Your task to perform on an android device: toggle javascript in the chrome app Image 0: 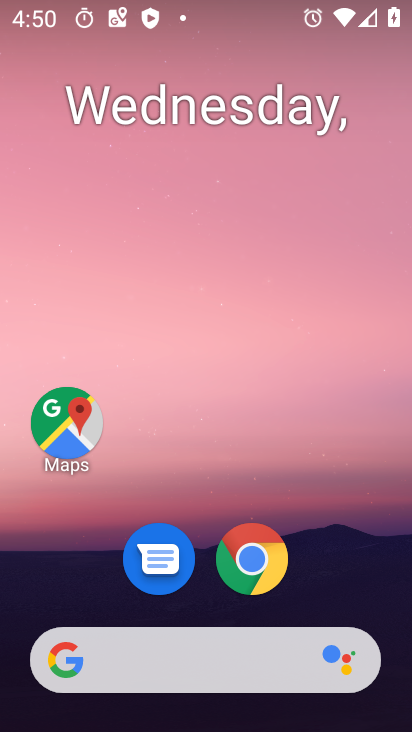
Step 0: click (266, 557)
Your task to perform on an android device: toggle javascript in the chrome app Image 1: 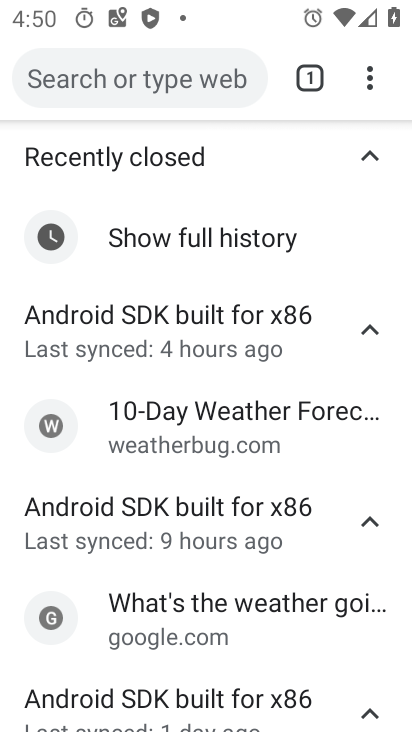
Step 1: click (371, 88)
Your task to perform on an android device: toggle javascript in the chrome app Image 2: 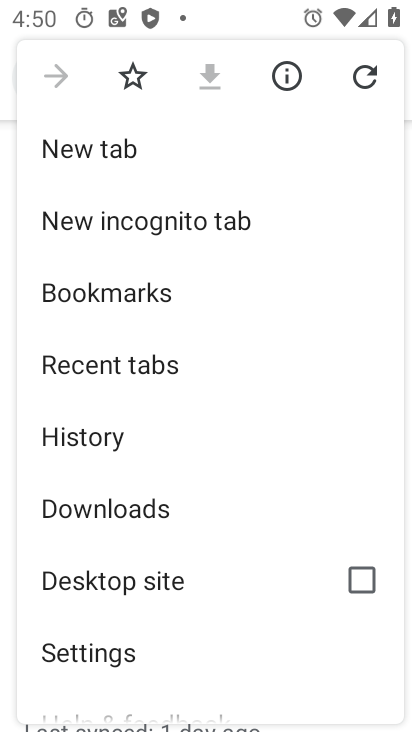
Step 2: drag from (227, 623) to (201, 186)
Your task to perform on an android device: toggle javascript in the chrome app Image 3: 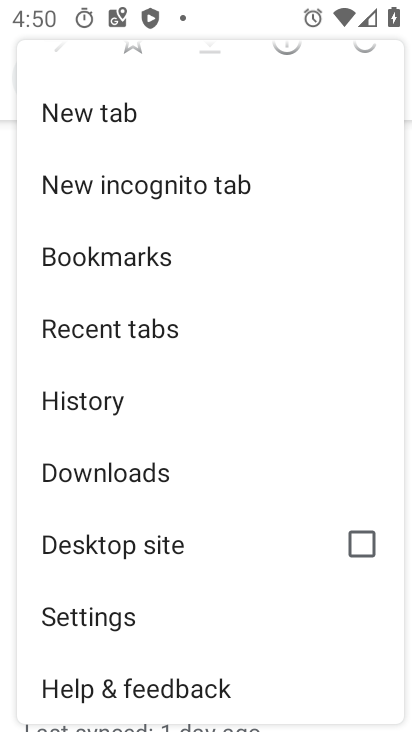
Step 3: click (198, 626)
Your task to perform on an android device: toggle javascript in the chrome app Image 4: 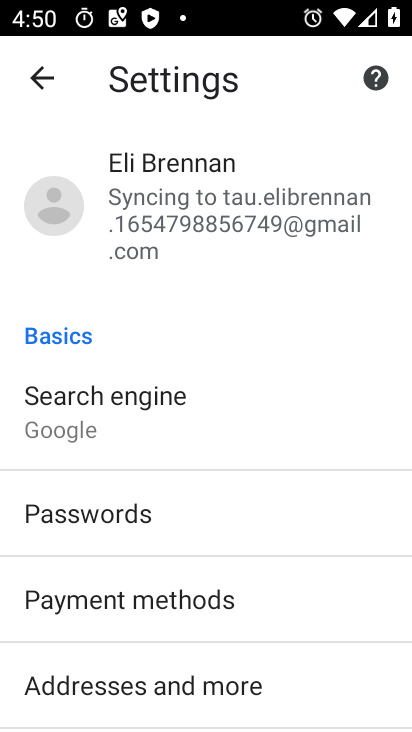
Step 4: drag from (242, 662) to (225, 242)
Your task to perform on an android device: toggle javascript in the chrome app Image 5: 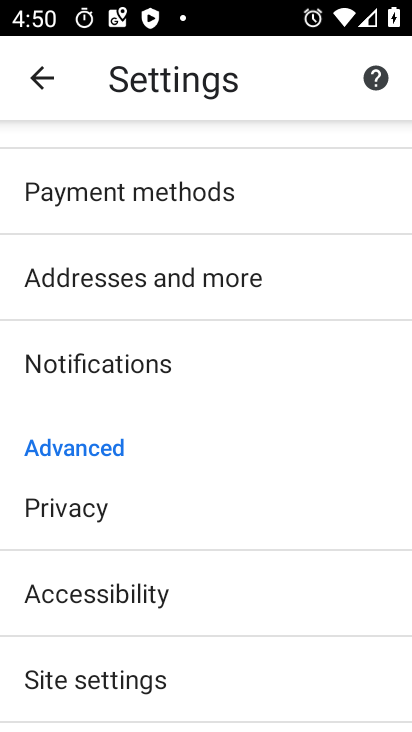
Step 5: drag from (269, 584) to (242, 226)
Your task to perform on an android device: toggle javascript in the chrome app Image 6: 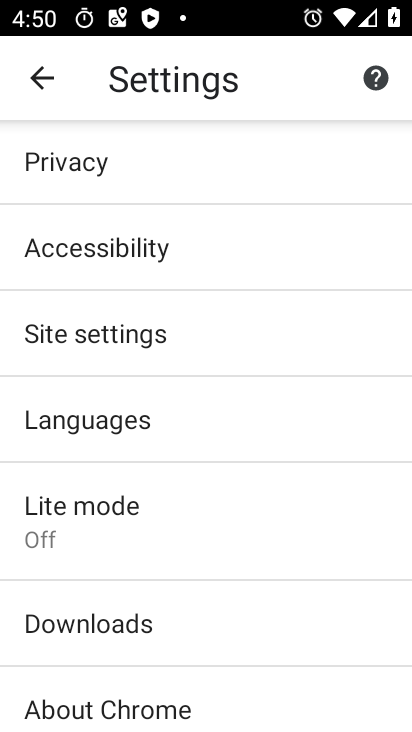
Step 6: click (222, 356)
Your task to perform on an android device: toggle javascript in the chrome app Image 7: 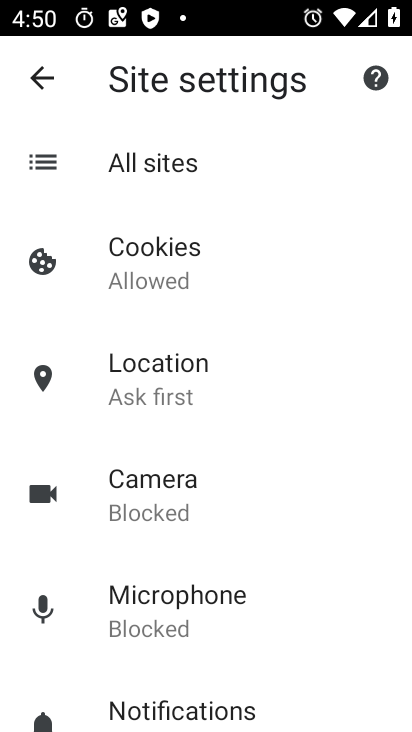
Step 7: drag from (260, 642) to (218, 306)
Your task to perform on an android device: toggle javascript in the chrome app Image 8: 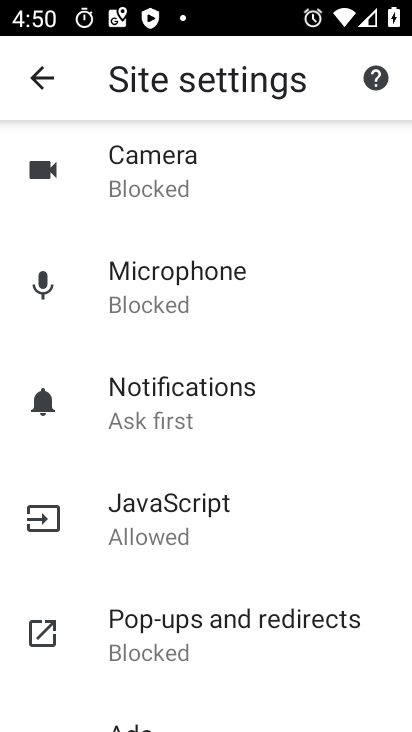
Step 8: click (222, 525)
Your task to perform on an android device: toggle javascript in the chrome app Image 9: 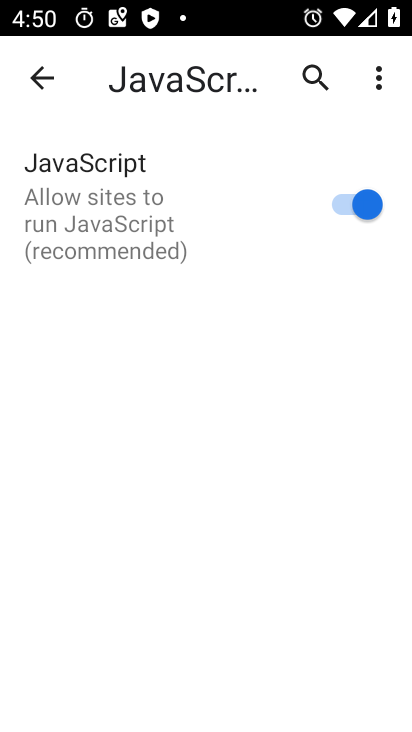
Step 9: click (351, 202)
Your task to perform on an android device: toggle javascript in the chrome app Image 10: 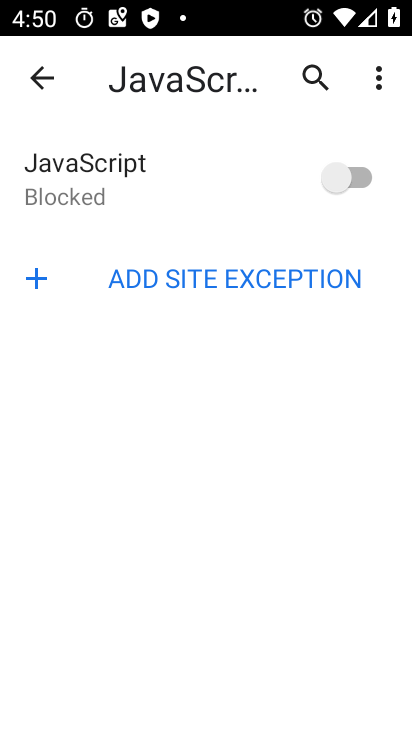
Step 10: task complete